Your task to perform on an android device: Show me recent news Image 0: 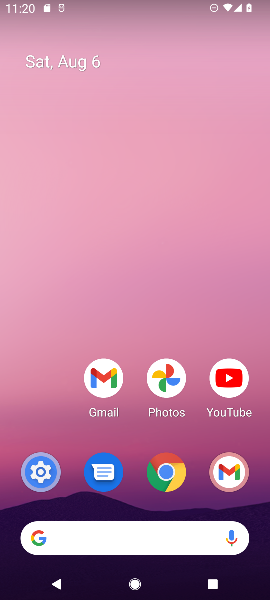
Step 0: drag from (144, 528) to (115, 287)
Your task to perform on an android device: Show me recent news Image 1: 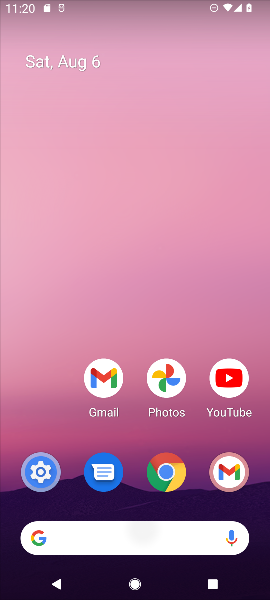
Step 1: drag from (178, 465) to (120, 231)
Your task to perform on an android device: Show me recent news Image 2: 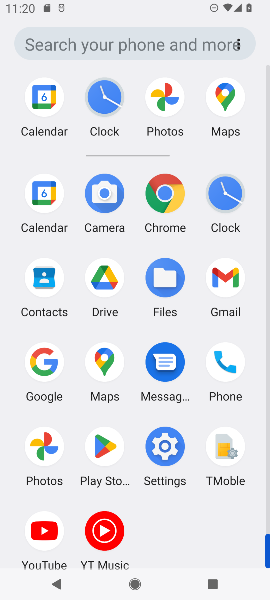
Step 2: drag from (145, 496) to (117, 254)
Your task to perform on an android device: Show me recent news Image 3: 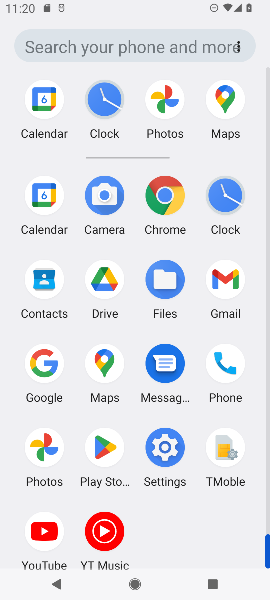
Step 3: click (163, 197)
Your task to perform on an android device: Show me recent news Image 4: 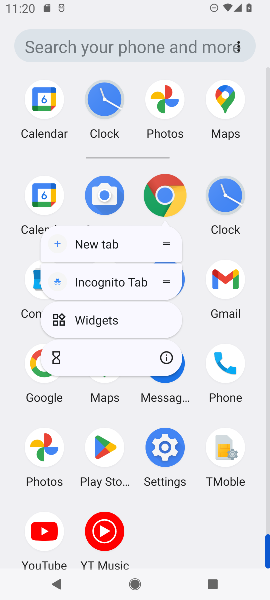
Step 4: click (163, 197)
Your task to perform on an android device: Show me recent news Image 5: 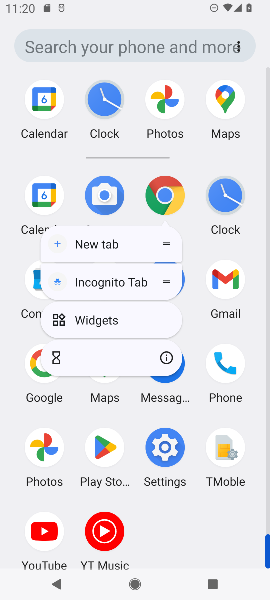
Step 5: click (164, 196)
Your task to perform on an android device: Show me recent news Image 6: 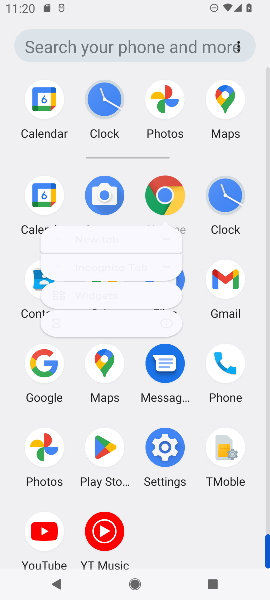
Step 6: click (164, 196)
Your task to perform on an android device: Show me recent news Image 7: 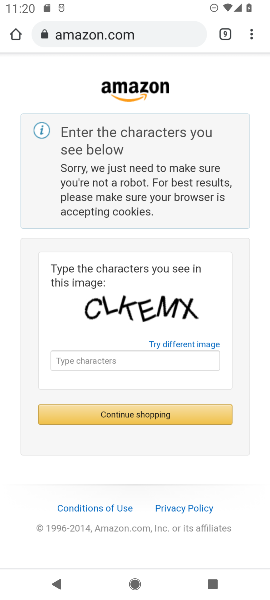
Step 7: click (167, 198)
Your task to perform on an android device: Show me recent news Image 8: 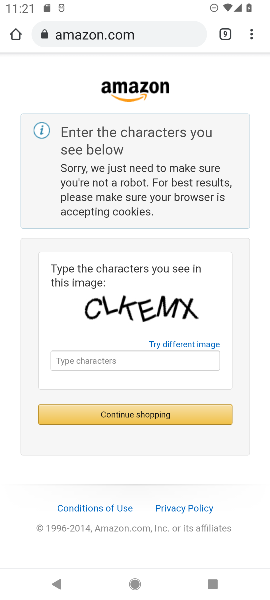
Step 8: drag from (249, 29) to (156, 120)
Your task to perform on an android device: Show me recent news Image 9: 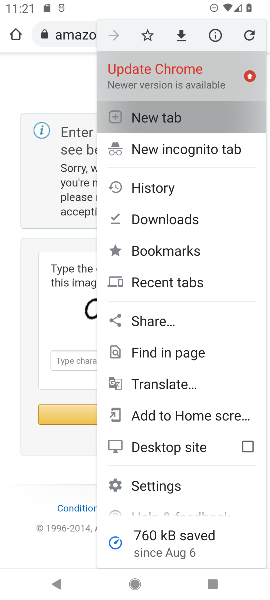
Step 9: click (156, 120)
Your task to perform on an android device: Show me recent news Image 10: 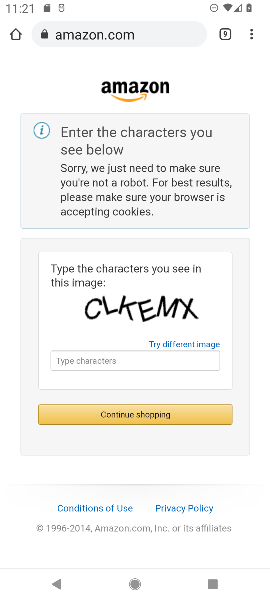
Step 10: click (159, 122)
Your task to perform on an android device: Show me recent news Image 11: 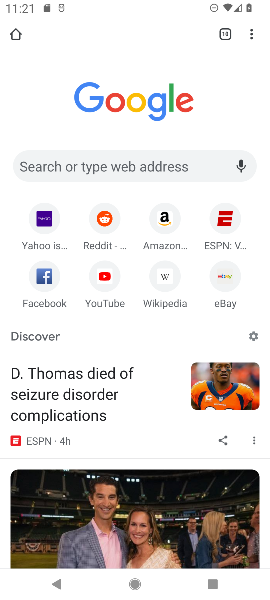
Step 11: task complete